Your task to perform on an android device: turn off javascript in the chrome app Image 0: 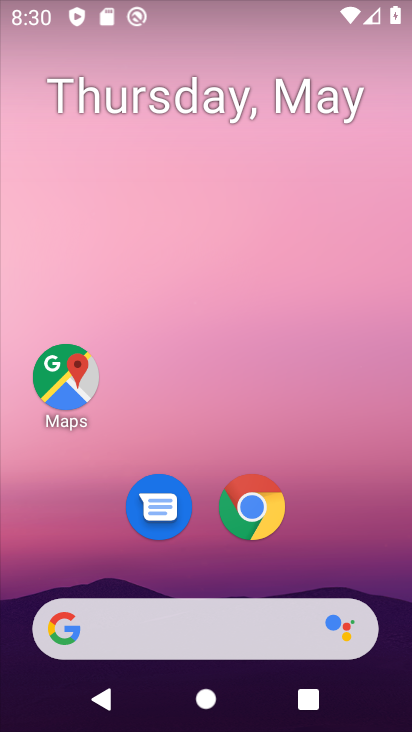
Step 0: drag from (288, 643) to (269, 174)
Your task to perform on an android device: turn off javascript in the chrome app Image 1: 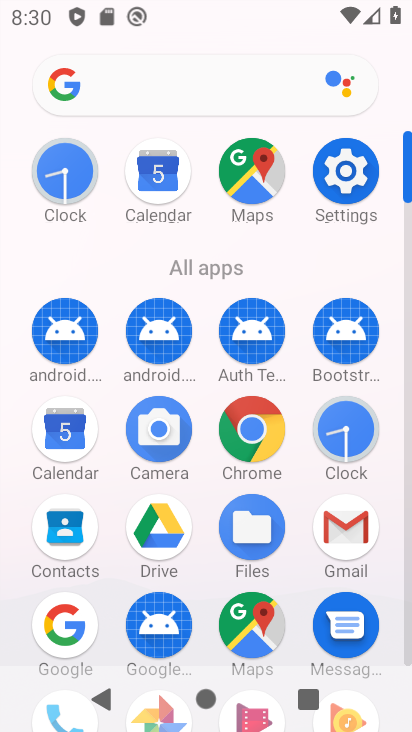
Step 1: click (266, 439)
Your task to perform on an android device: turn off javascript in the chrome app Image 2: 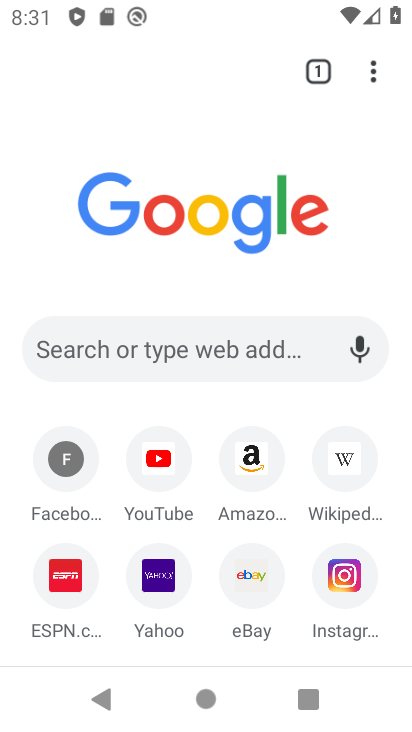
Step 2: click (372, 76)
Your task to perform on an android device: turn off javascript in the chrome app Image 3: 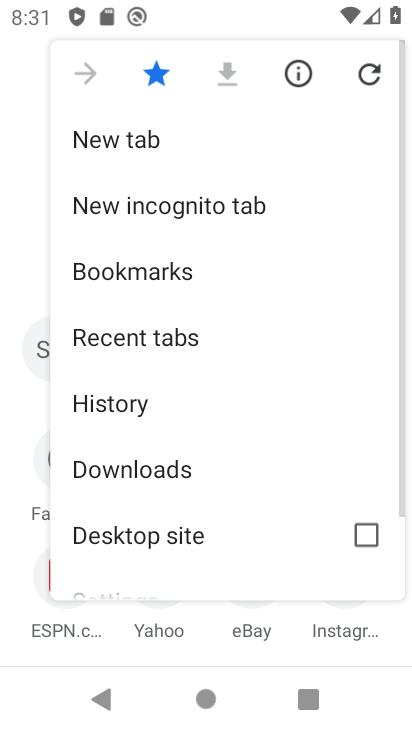
Step 3: drag from (207, 499) to (259, 120)
Your task to perform on an android device: turn off javascript in the chrome app Image 4: 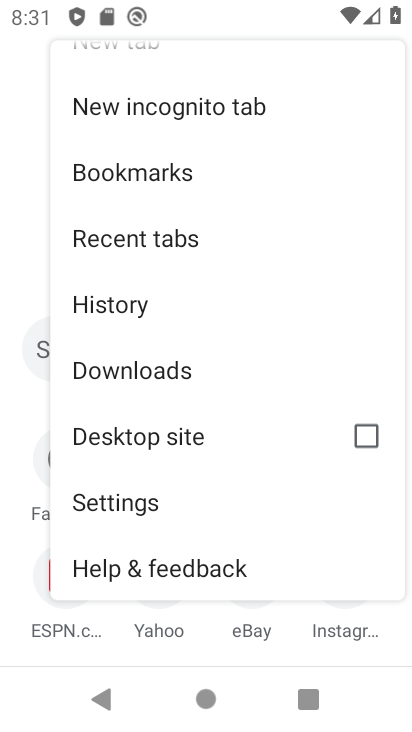
Step 4: click (205, 497)
Your task to perform on an android device: turn off javascript in the chrome app Image 5: 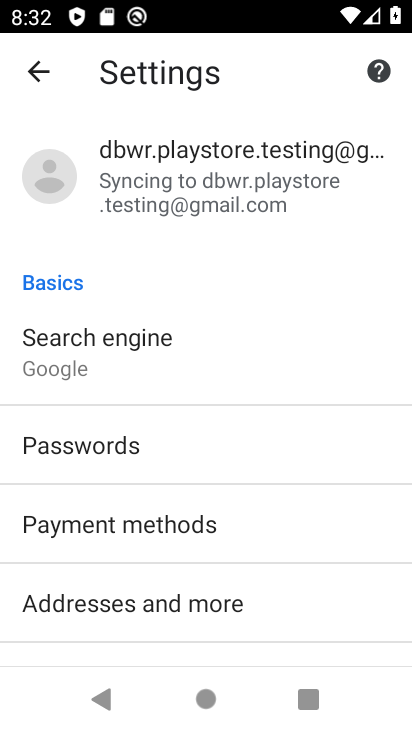
Step 5: drag from (156, 566) to (186, 143)
Your task to perform on an android device: turn off javascript in the chrome app Image 6: 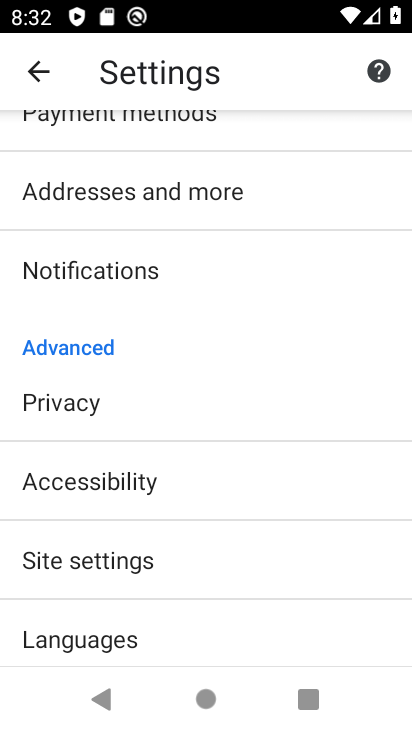
Step 6: drag from (205, 580) to (224, 457)
Your task to perform on an android device: turn off javascript in the chrome app Image 7: 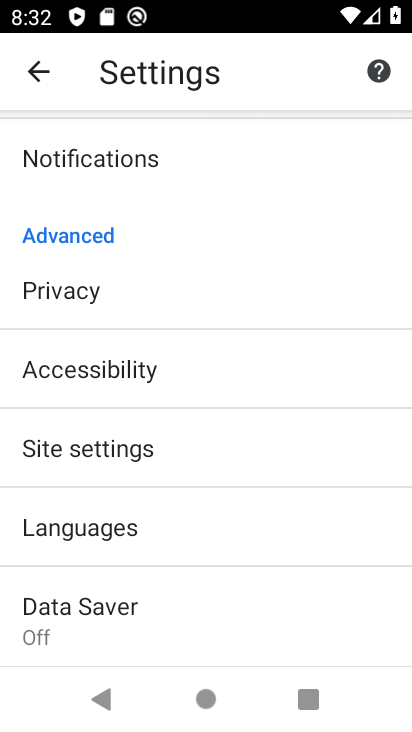
Step 7: click (224, 452)
Your task to perform on an android device: turn off javascript in the chrome app Image 8: 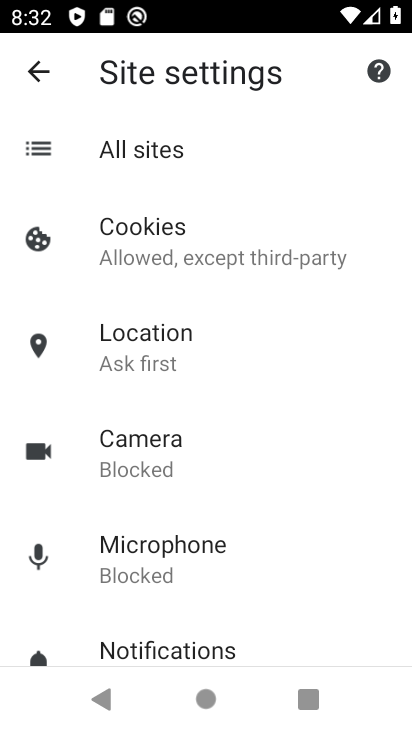
Step 8: drag from (195, 512) to (241, 238)
Your task to perform on an android device: turn off javascript in the chrome app Image 9: 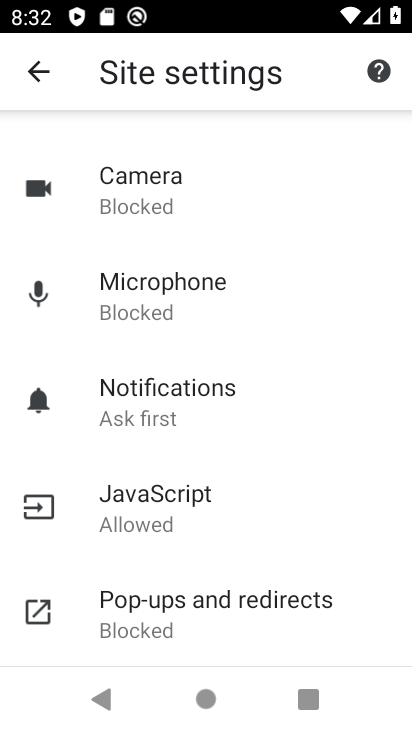
Step 9: click (235, 513)
Your task to perform on an android device: turn off javascript in the chrome app Image 10: 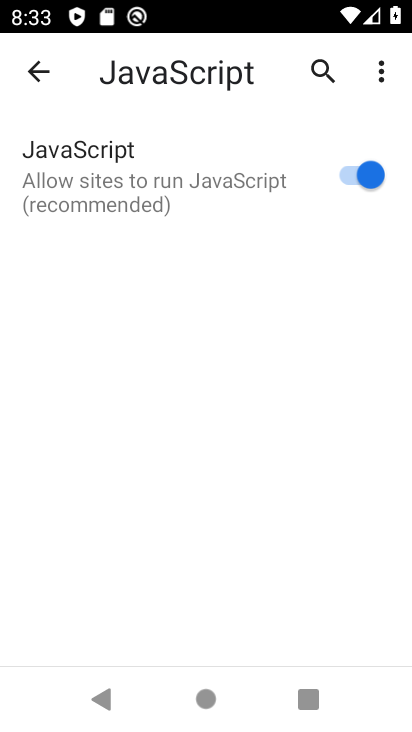
Step 10: click (344, 181)
Your task to perform on an android device: turn off javascript in the chrome app Image 11: 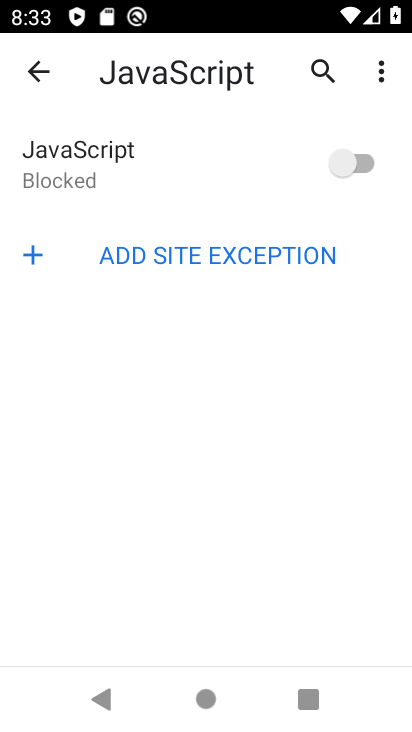
Step 11: task complete